Your task to perform on an android device: Search for pizza restaurants on Maps Image 0: 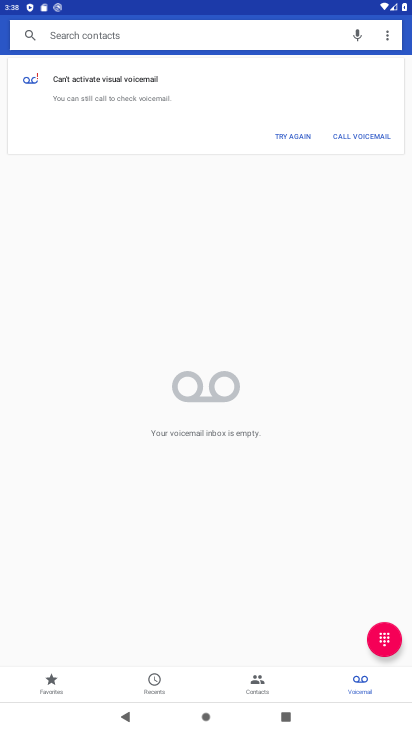
Step 0: press home button
Your task to perform on an android device: Search for pizza restaurants on Maps Image 1: 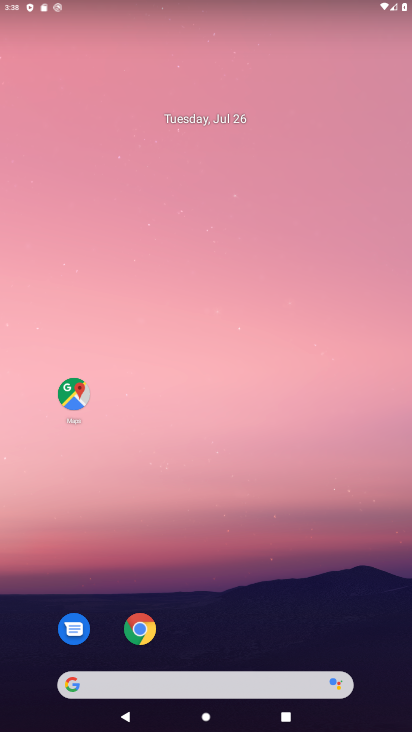
Step 1: drag from (253, 574) to (215, 118)
Your task to perform on an android device: Search for pizza restaurants on Maps Image 2: 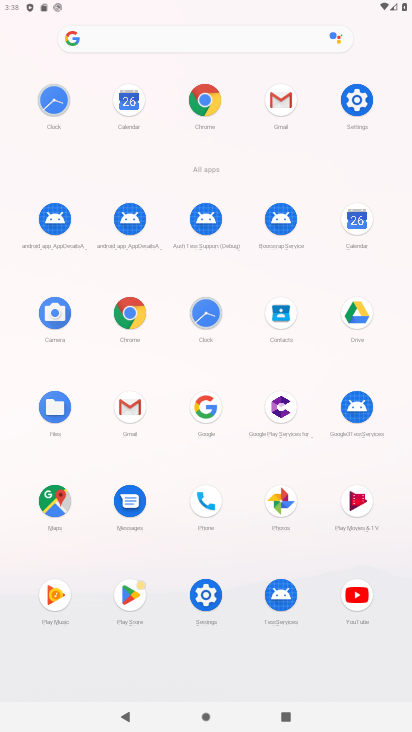
Step 2: click (47, 499)
Your task to perform on an android device: Search for pizza restaurants on Maps Image 3: 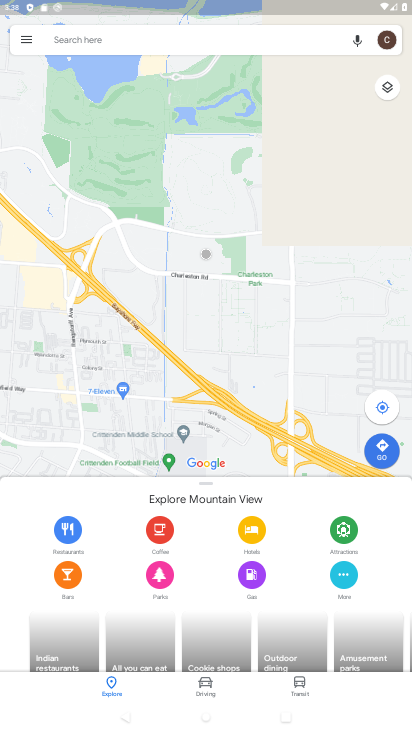
Step 3: click (216, 37)
Your task to perform on an android device: Search for pizza restaurants on Maps Image 4: 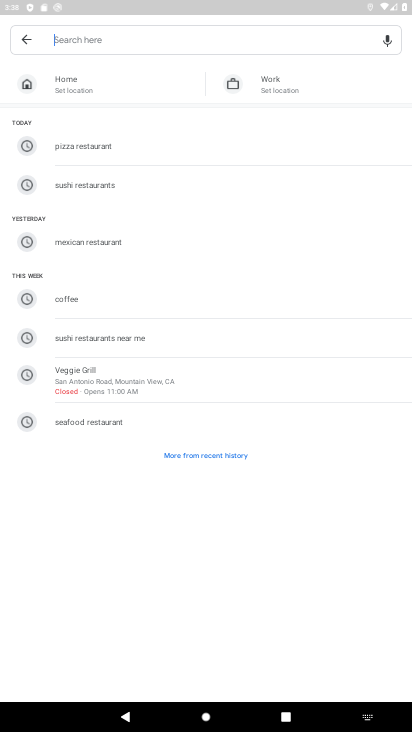
Step 4: click (104, 149)
Your task to perform on an android device: Search for pizza restaurants on Maps Image 5: 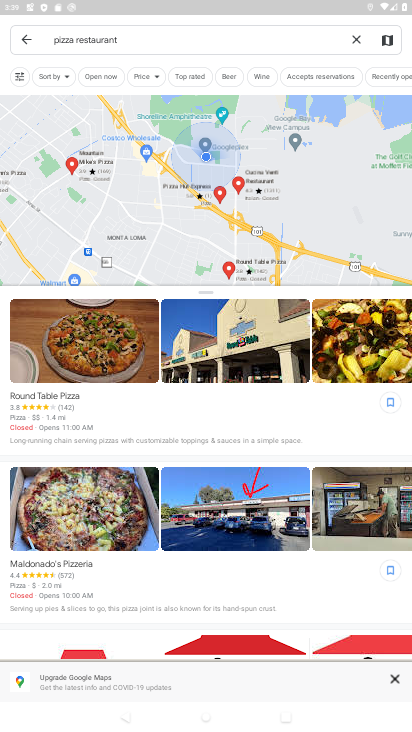
Step 5: task complete